Your task to perform on an android device: open app "DoorDash - Dasher" (install if not already installed) Image 0: 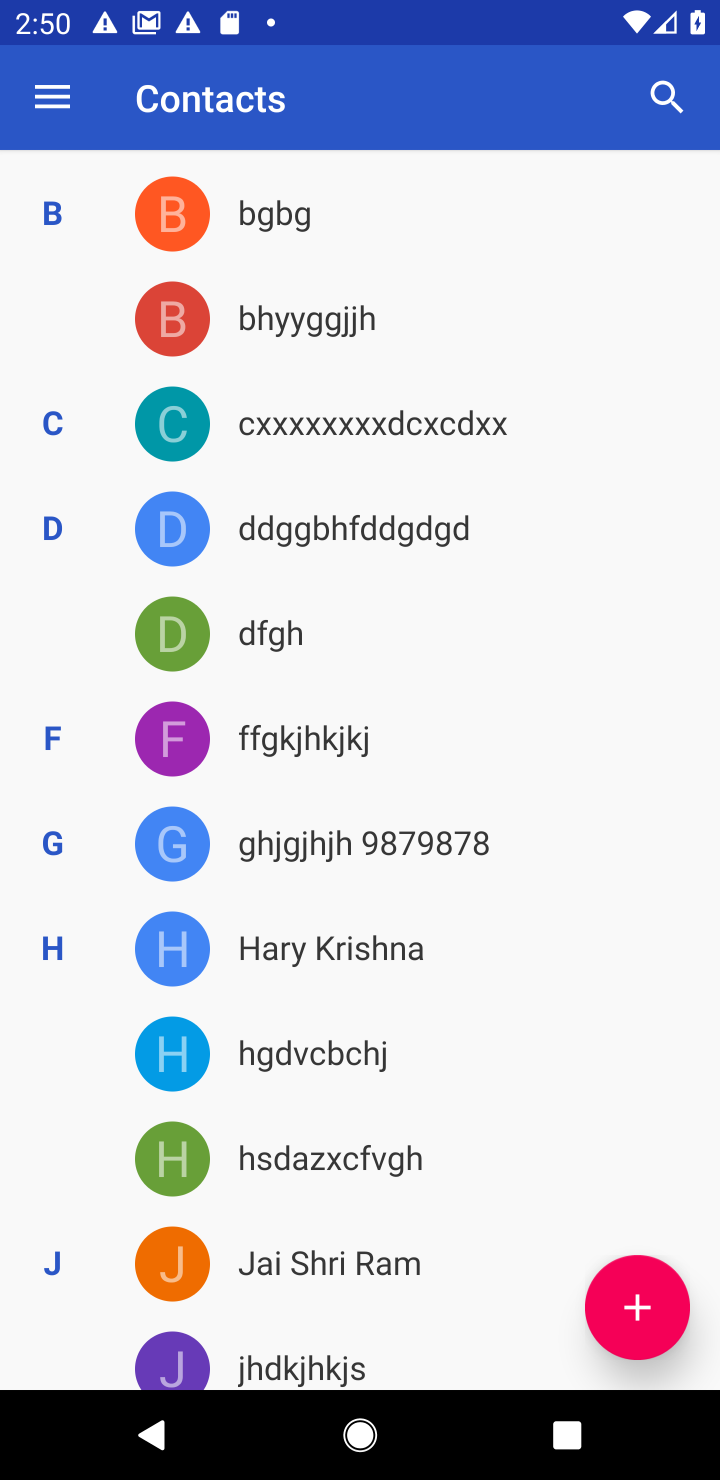
Step 0: press home button
Your task to perform on an android device: open app "DoorDash - Dasher" (install if not already installed) Image 1: 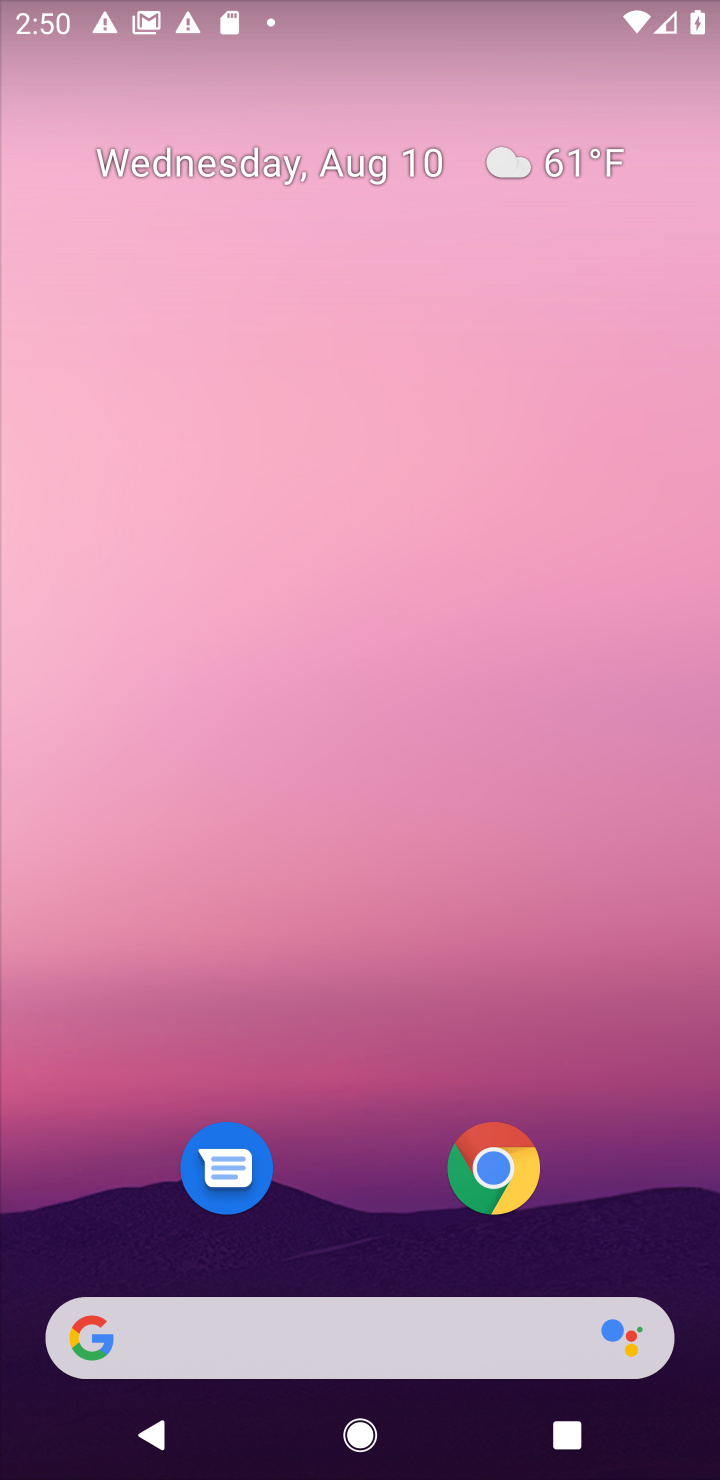
Step 1: drag from (349, 1272) to (366, 151)
Your task to perform on an android device: open app "DoorDash - Dasher" (install if not already installed) Image 2: 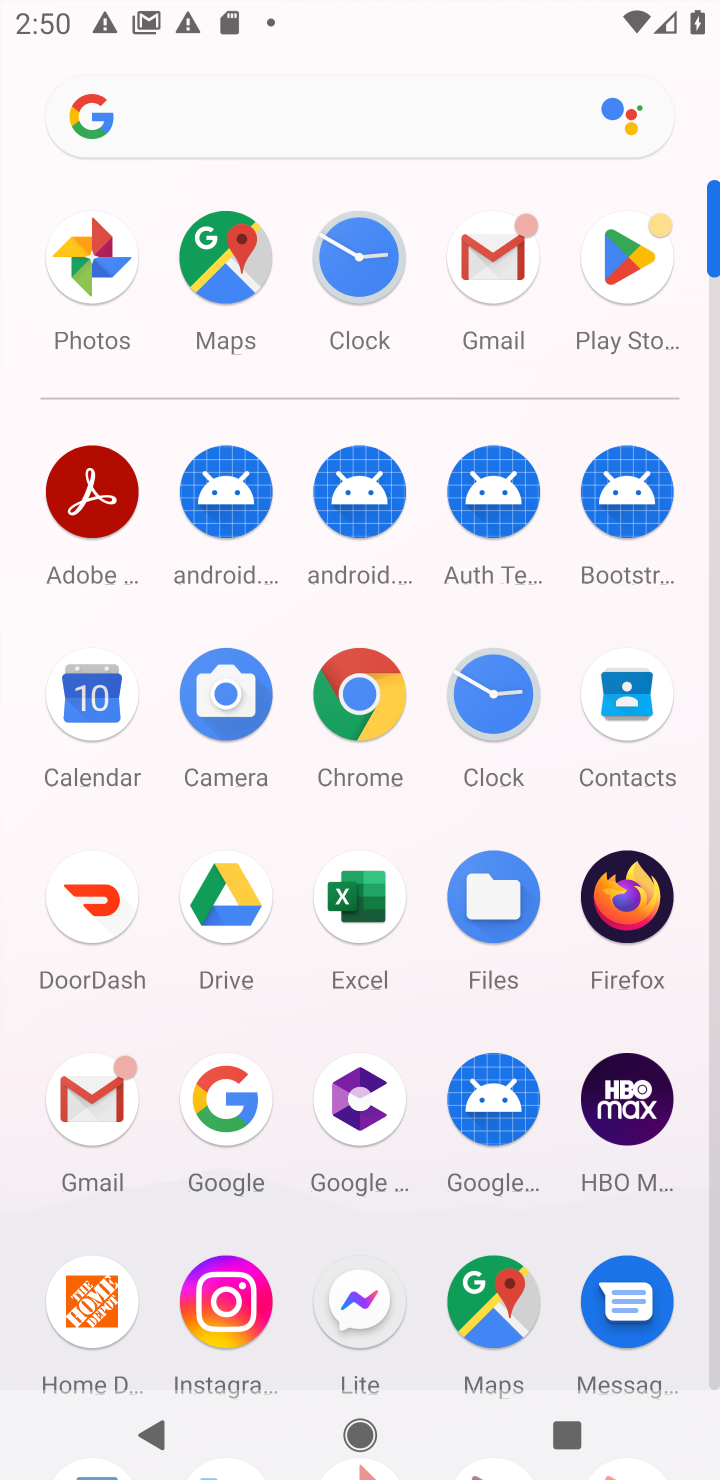
Step 2: click (630, 256)
Your task to perform on an android device: open app "DoorDash - Dasher" (install if not already installed) Image 3: 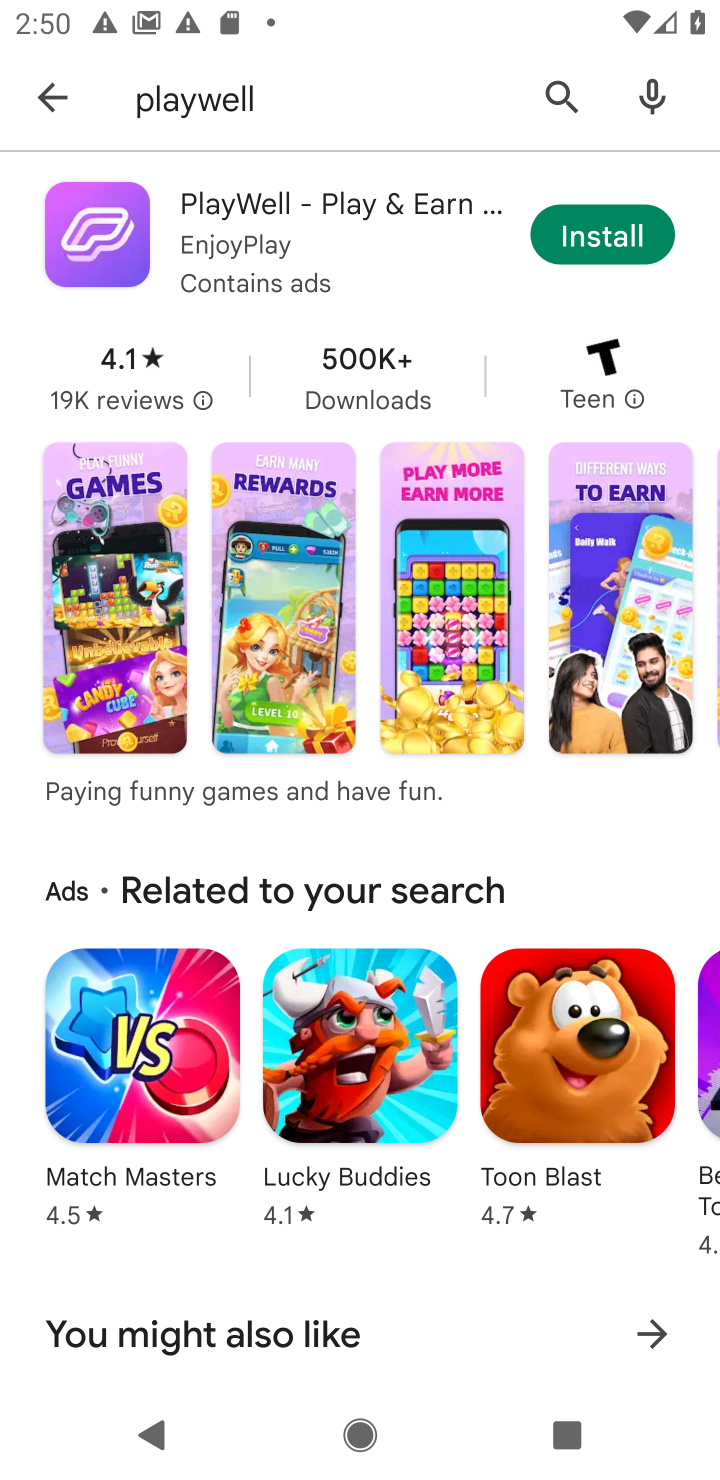
Step 3: press back button
Your task to perform on an android device: open app "DoorDash - Dasher" (install if not already installed) Image 4: 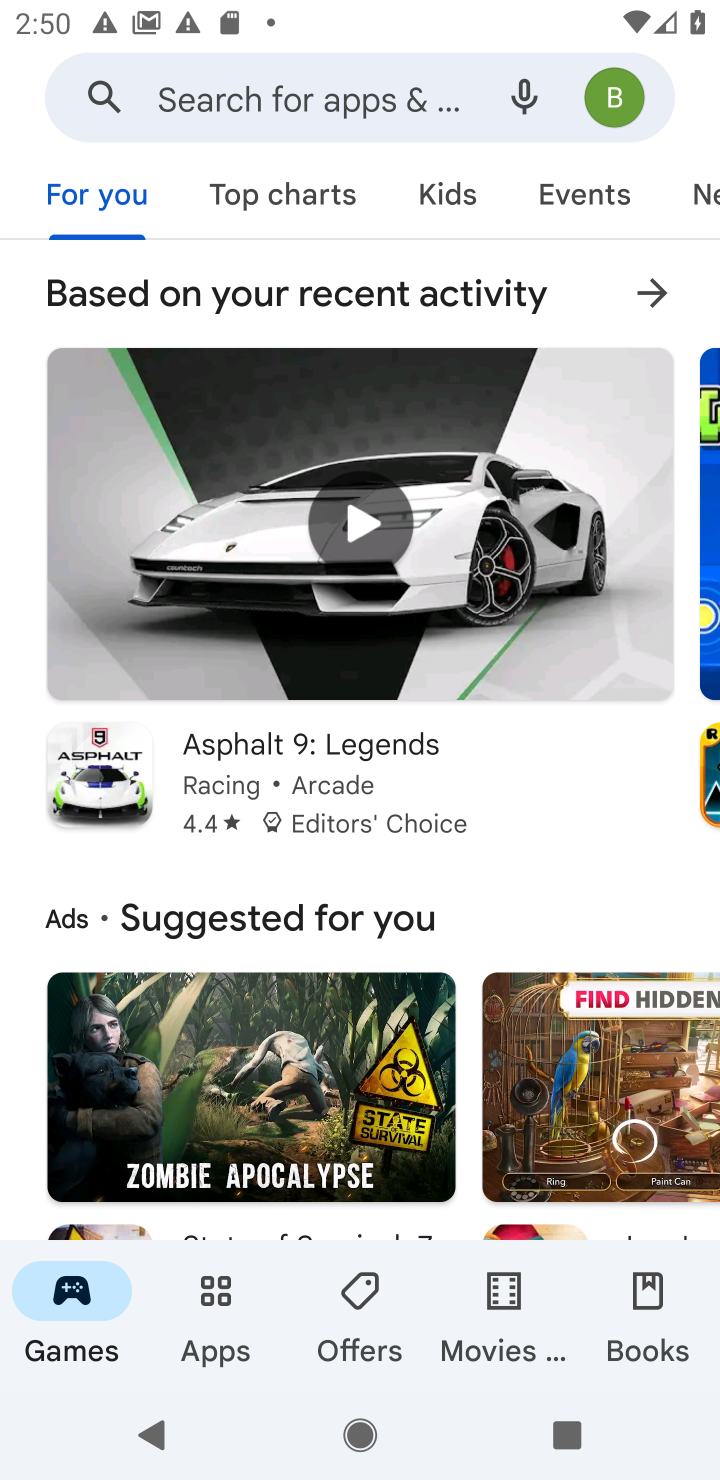
Step 4: click (332, 108)
Your task to perform on an android device: open app "DoorDash - Dasher" (install if not already installed) Image 5: 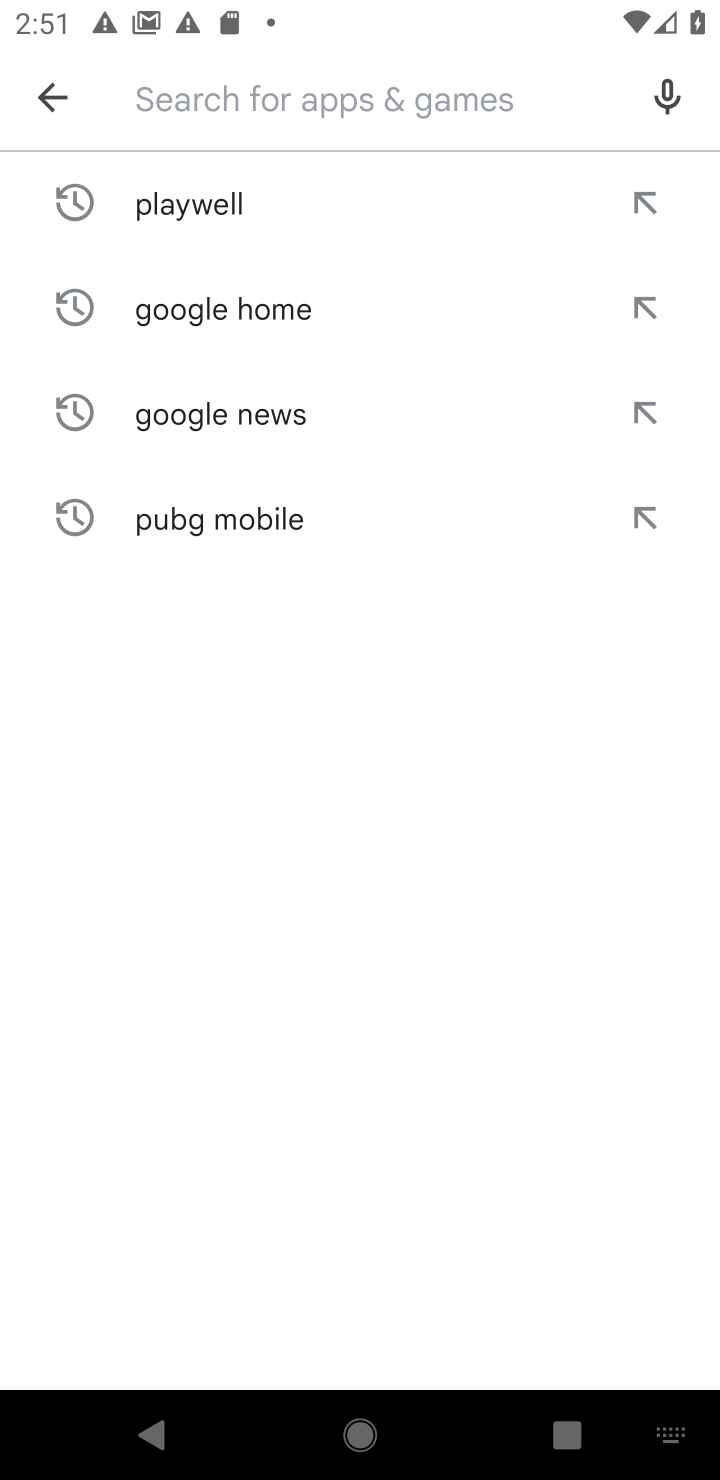
Step 5: type "DoorDash - Dasher"
Your task to perform on an android device: open app "DoorDash - Dasher" (install if not already installed) Image 6: 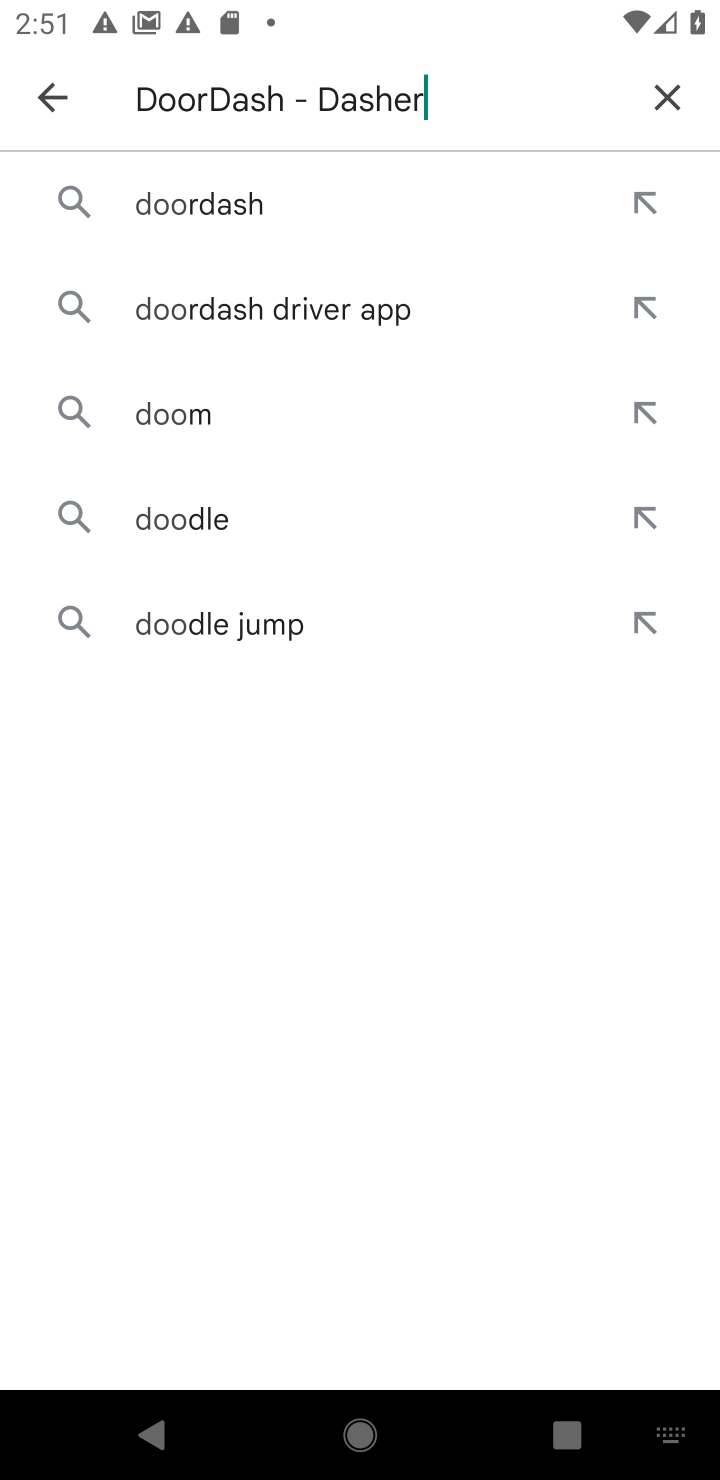
Step 6: type ""
Your task to perform on an android device: open app "DoorDash - Dasher" (install if not already installed) Image 7: 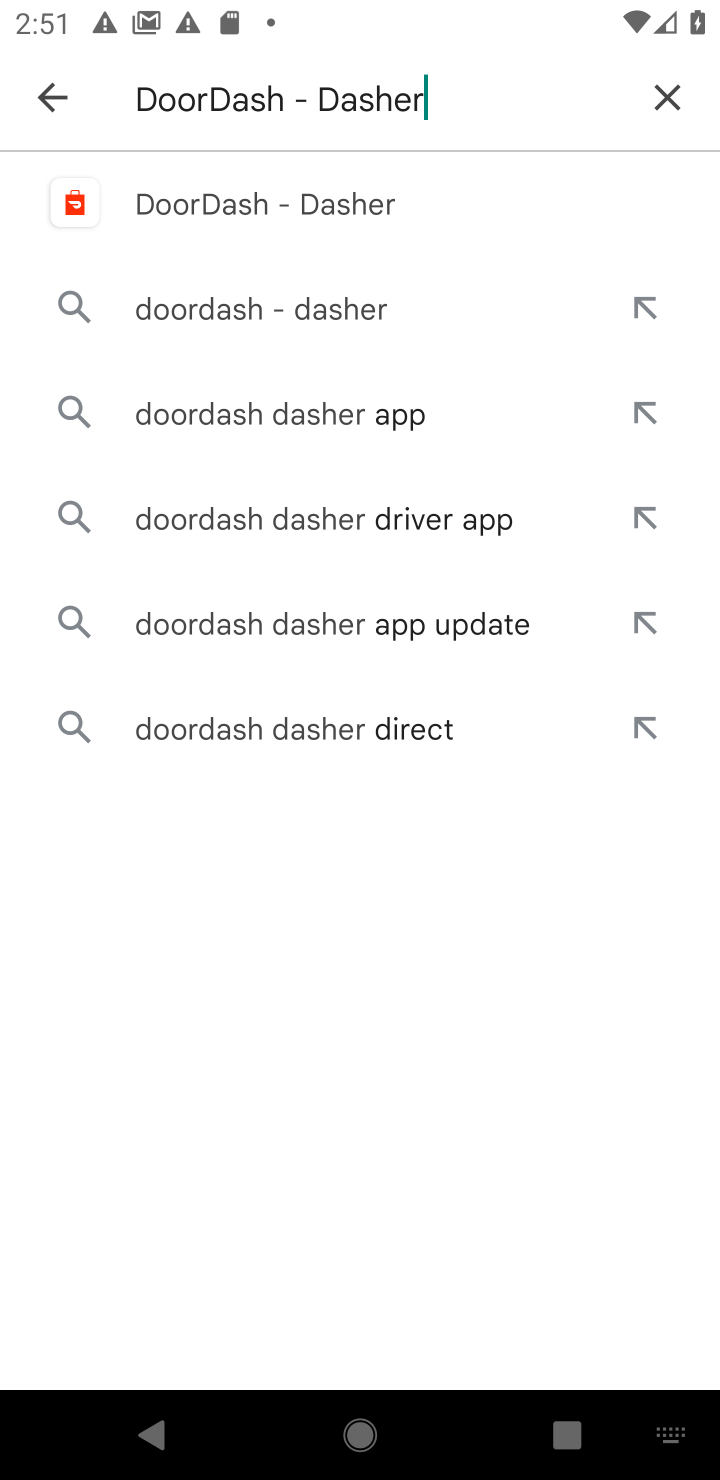
Step 7: click (205, 221)
Your task to perform on an android device: open app "DoorDash - Dasher" (install if not already installed) Image 8: 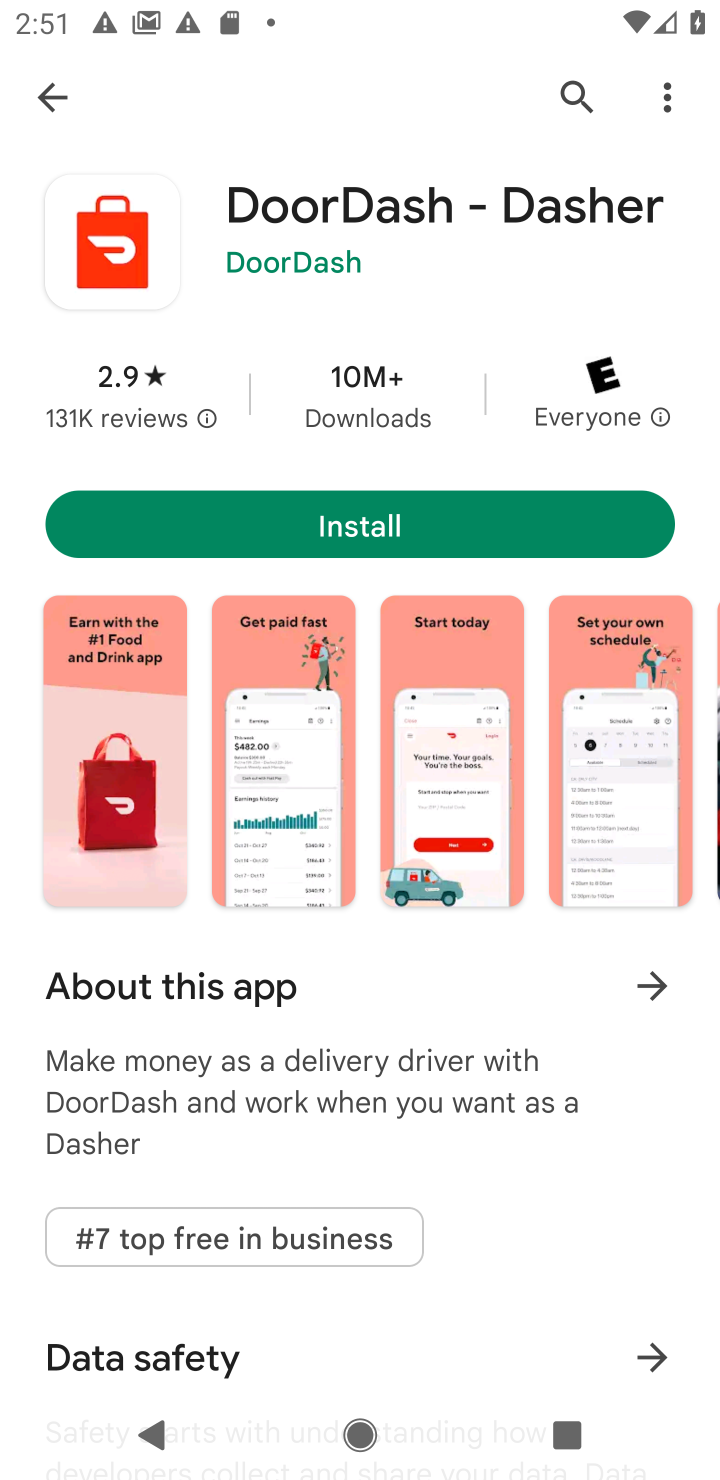
Step 8: click (431, 520)
Your task to perform on an android device: open app "DoorDash - Dasher" (install if not already installed) Image 9: 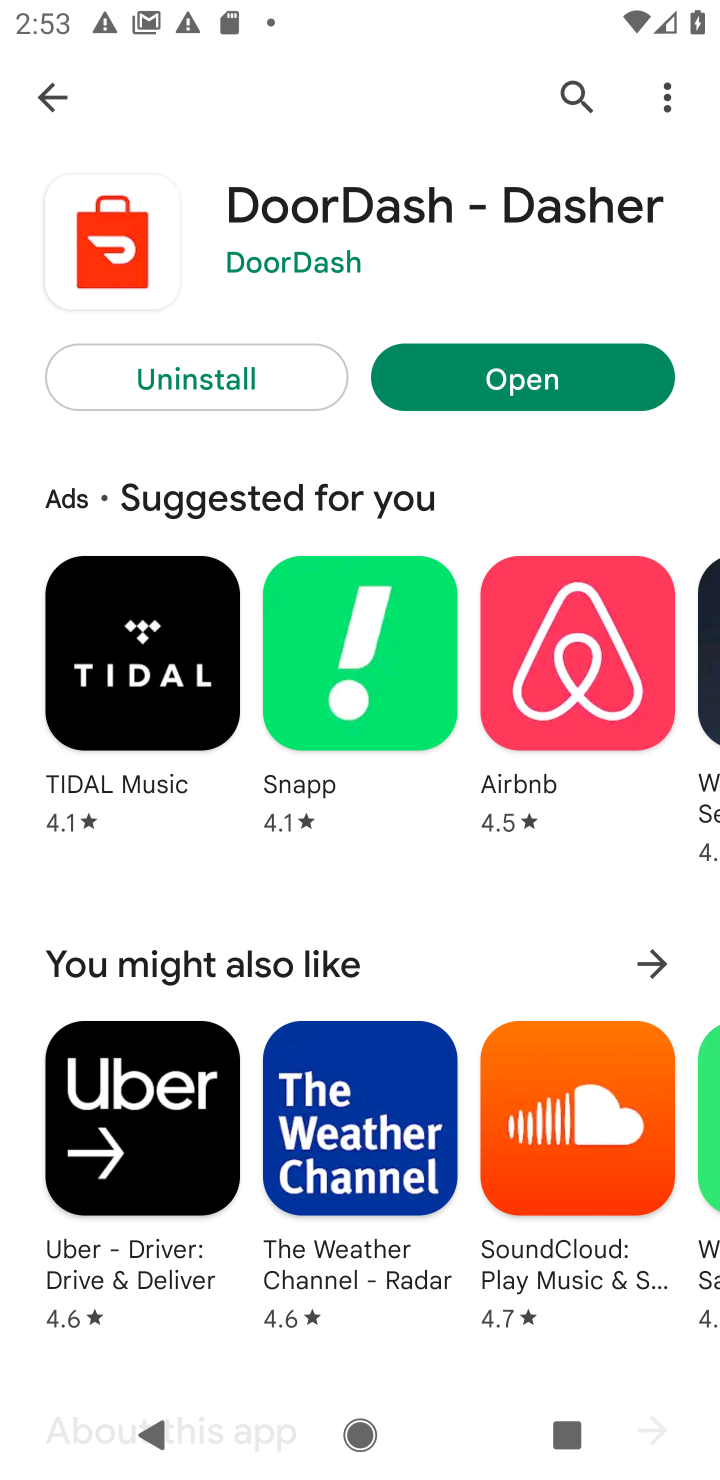
Step 9: click (430, 360)
Your task to perform on an android device: open app "DoorDash - Dasher" (install if not already installed) Image 10: 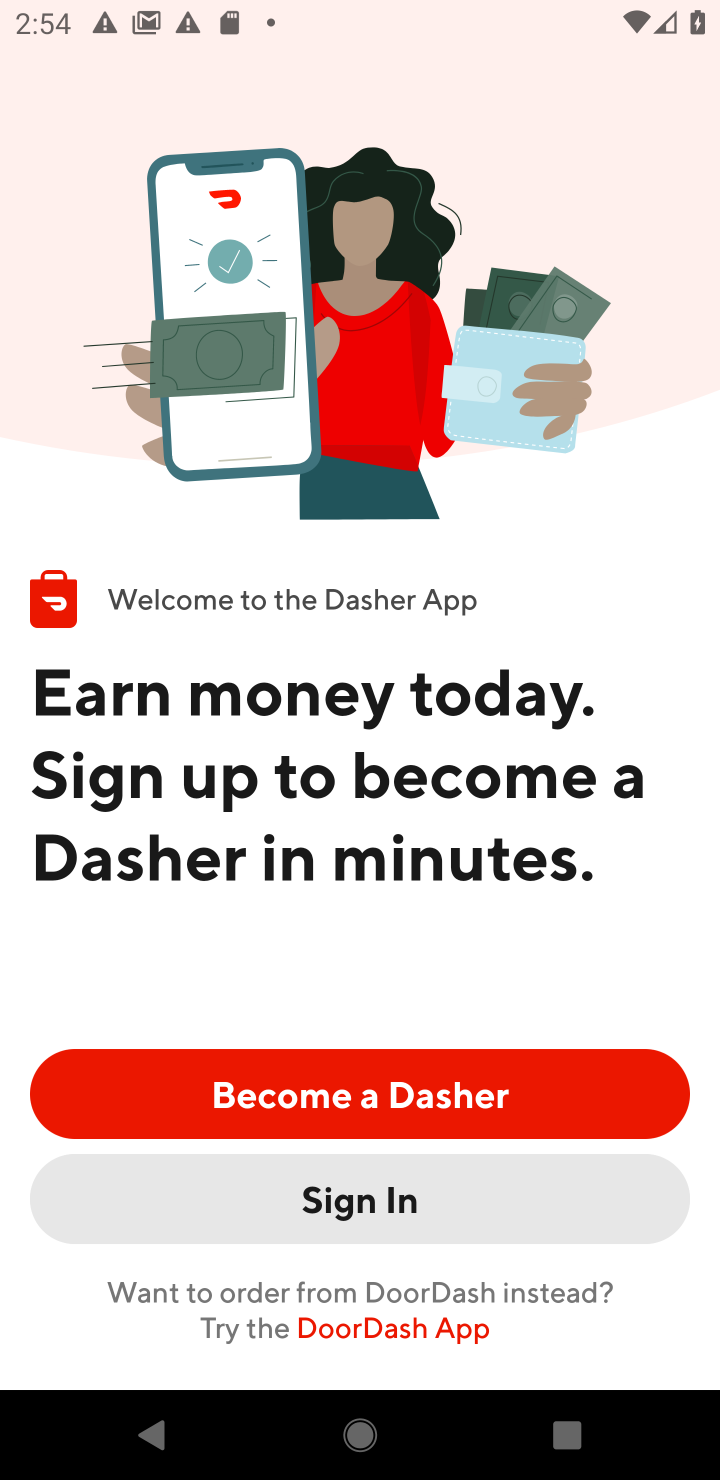
Step 10: task complete